Your task to perform on an android device: turn on improve location accuracy Image 0: 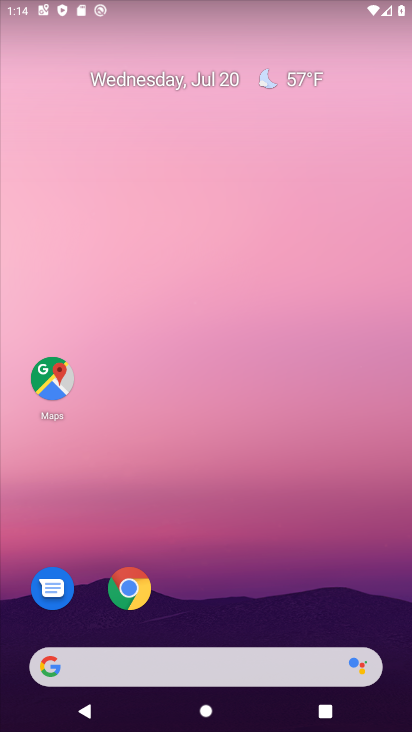
Step 0: press home button
Your task to perform on an android device: turn on improve location accuracy Image 1: 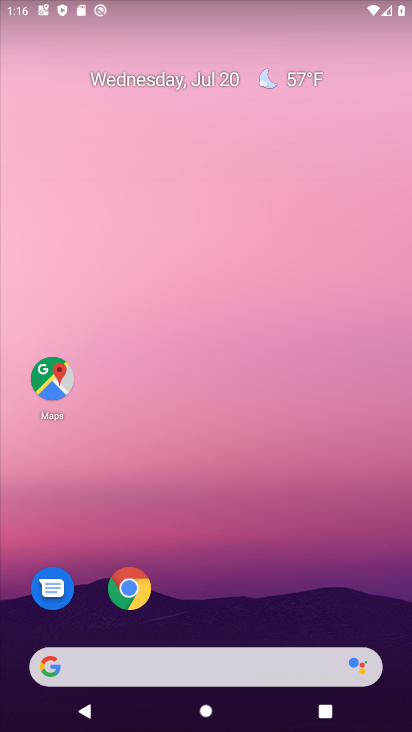
Step 1: drag from (117, 473) to (303, 86)
Your task to perform on an android device: turn on improve location accuracy Image 2: 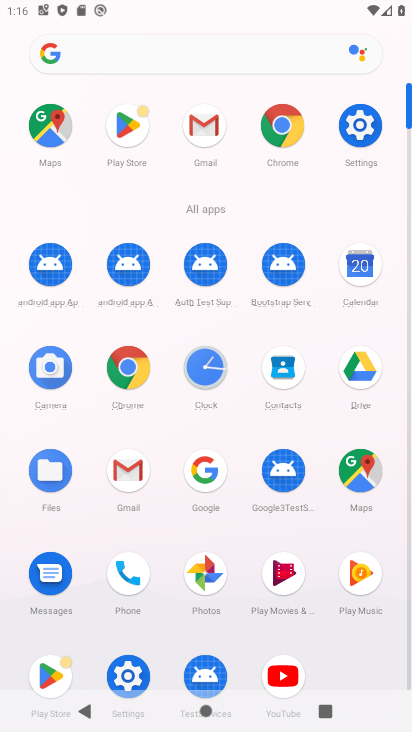
Step 2: click (362, 123)
Your task to perform on an android device: turn on improve location accuracy Image 3: 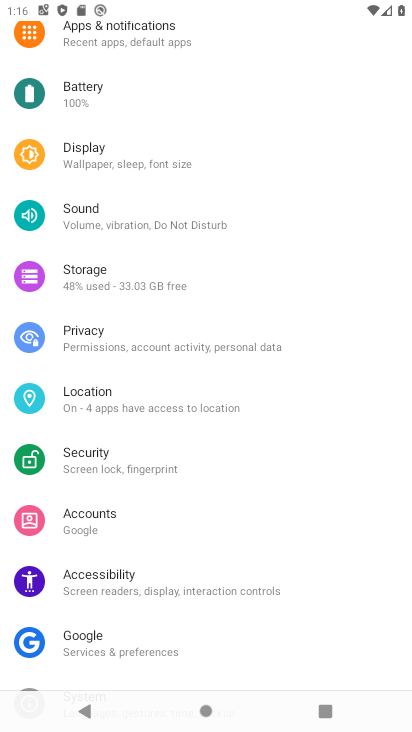
Step 3: click (96, 390)
Your task to perform on an android device: turn on improve location accuracy Image 4: 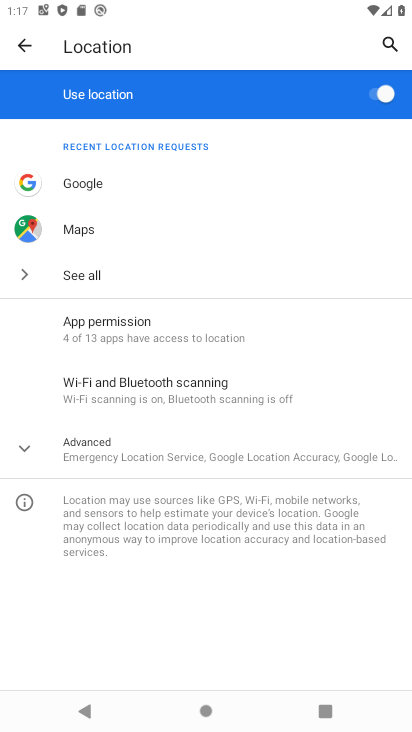
Step 4: click (60, 455)
Your task to perform on an android device: turn on improve location accuracy Image 5: 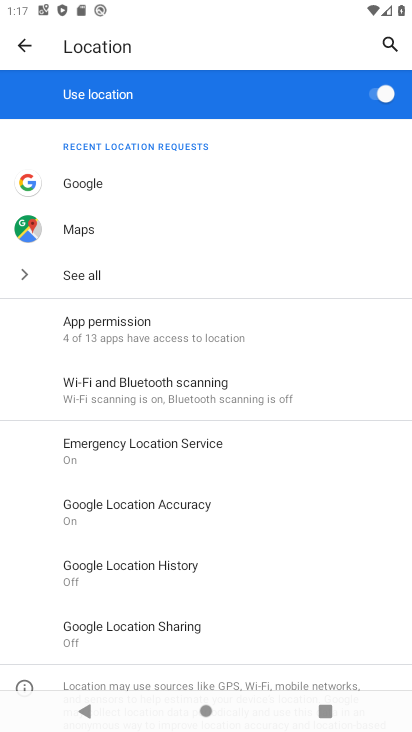
Step 5: click (161, 496)
Your task to perform on an android device: turn on improve location accuracy Image 6: 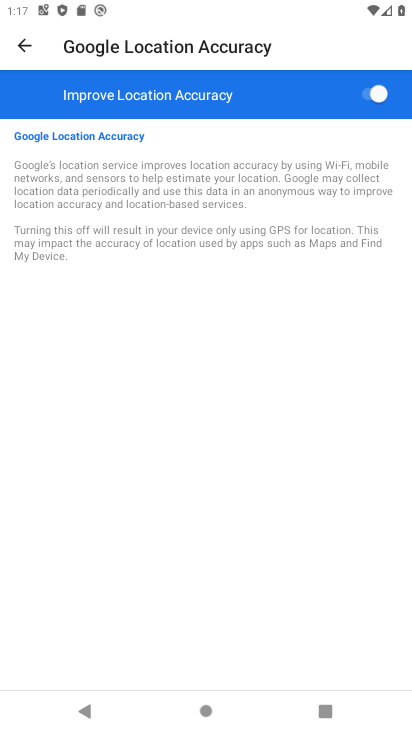
Step 6: task complete